Your task to perform on an android device: open app "Skype" (install if not already installed) Image 0: 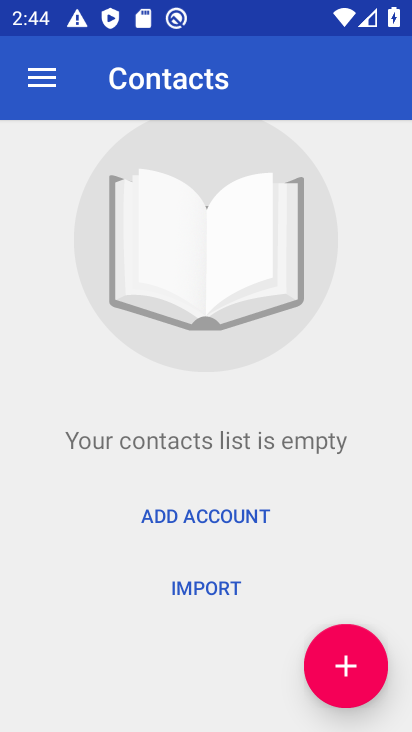
Step 0: press home button
Your task to perform on an android device: open app "Skype" (install if not already installed) Image 1: 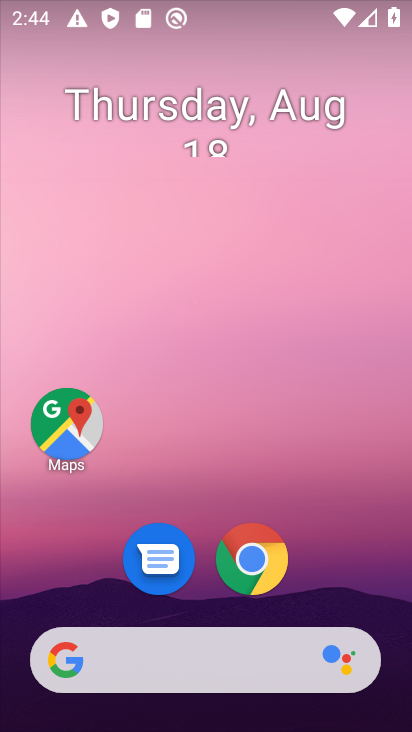
Step 1: drag from (149, 590) to (139, 51)
Your task to perform on an android device: open app "Skype" (install if not already installed) Image 2: 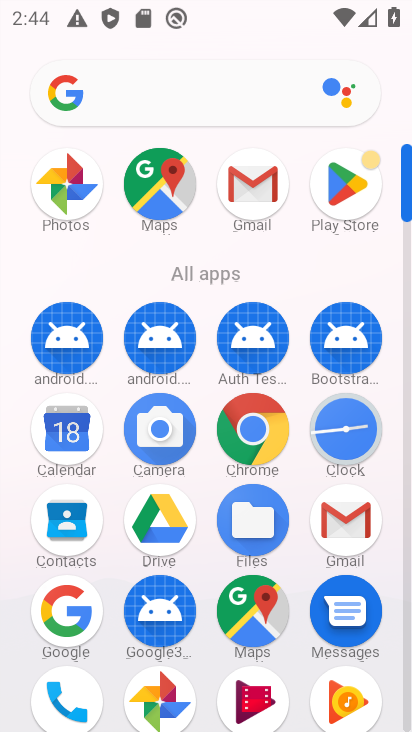
Step 2: click (353, 176)
Your task to perform on an android device: open app "Skype" (install if not already installed) Image 3: 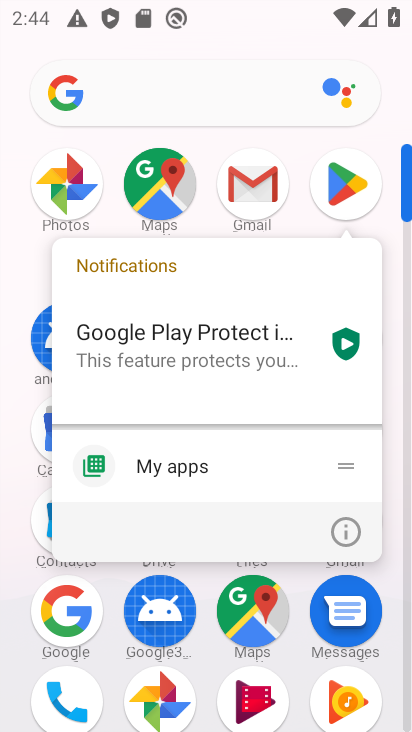
Step 3: click (320, 189)
Your task to perform on an android device: open app "Skype" (install if not already installed) Image 4: 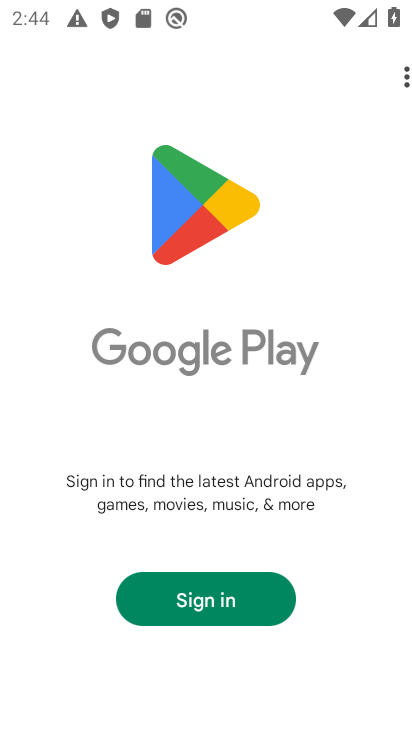
Step 4: click (217, 598)
Your task to perform on an android device: open app "Skype" (install if not already installed) Image 5: 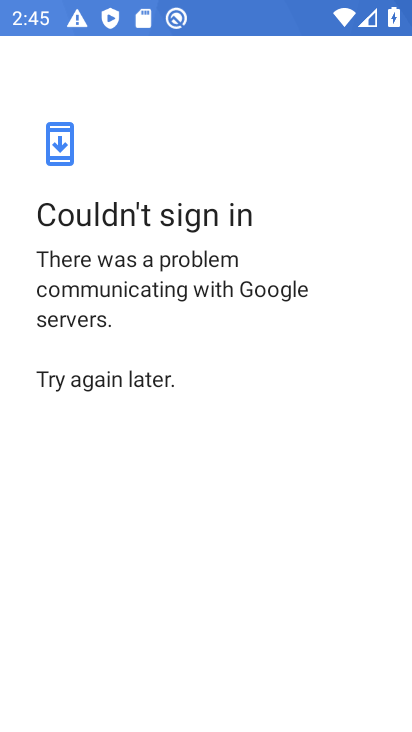
Step 5: task complete